Your task to perform on an android device: star an email in the gmail app Image 0: 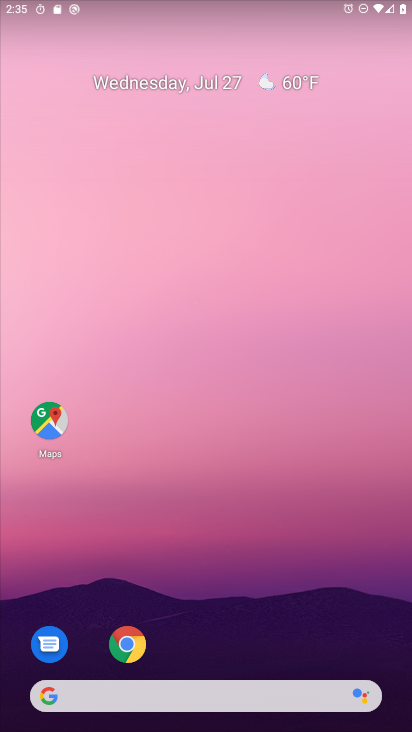
Step 0: drag from (196, 431) to (283, 1)
Your task to perform on an android device: star an email in the gmail app Image 1: 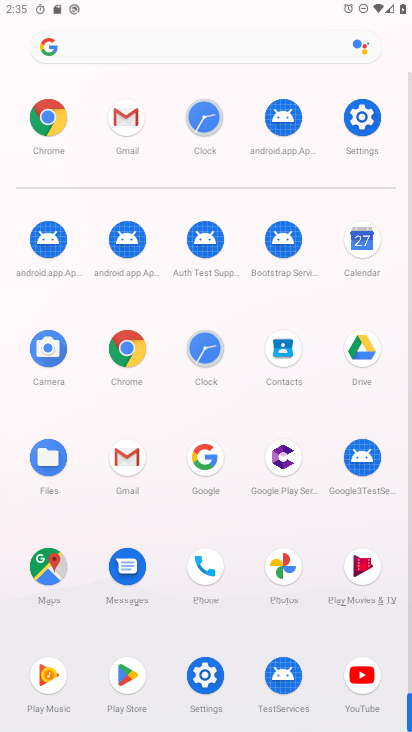
Step 1: click (130, 443)
Your task to perform on an android device: star an email in the gmail app Image 2: 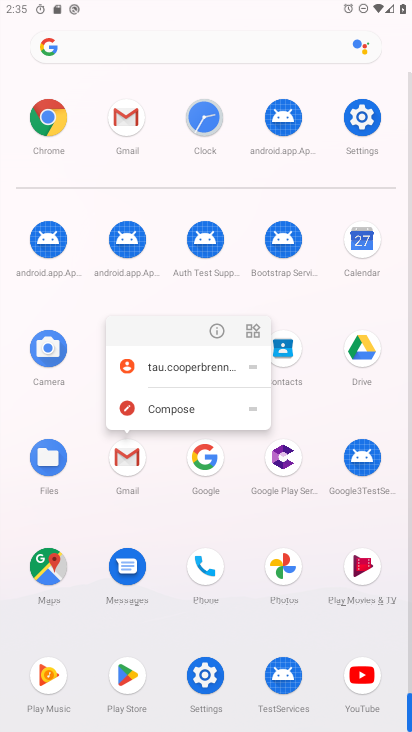
Step 2: click (222, 321)
Your task to perform on an android device: star an email in the gmail app Image 3: 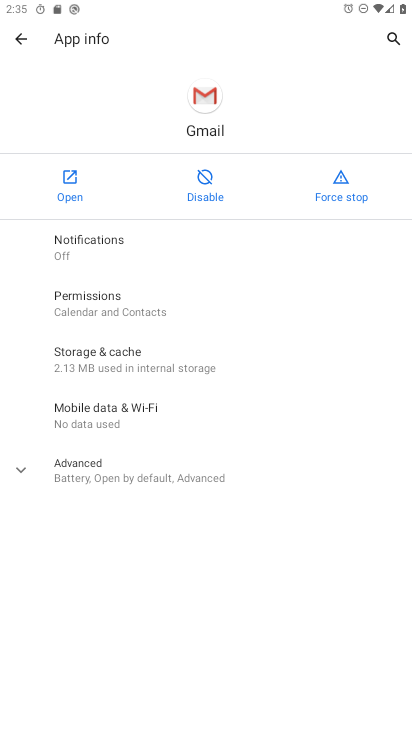
Step 3: click (72, 204)
Your task to perform on an android device: star an email in the gmail app Image 4: 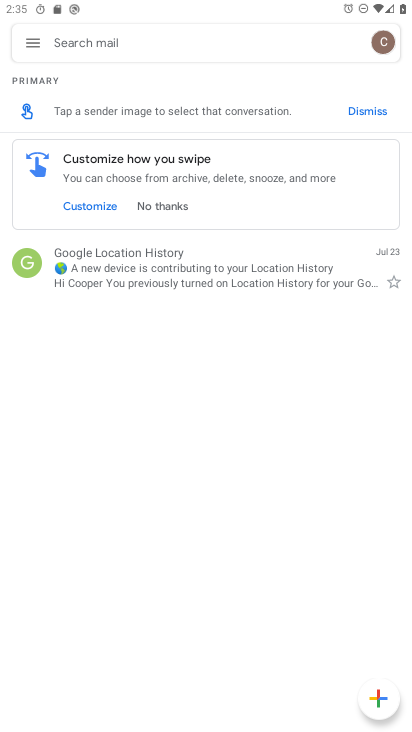
Step 4: click (24, 34)
Your task to perform on an android device: star an email in the gmail app Image 5: 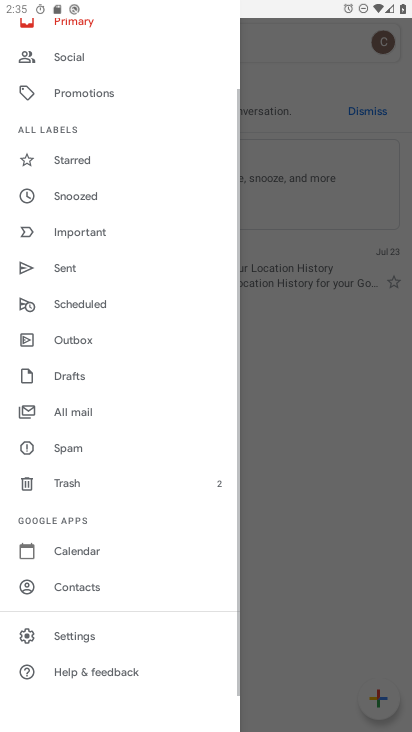
Step 5: drag from (92, 128) to (128, 479)
Your task to perform on an android device: star an email in the gmail app Image 6: 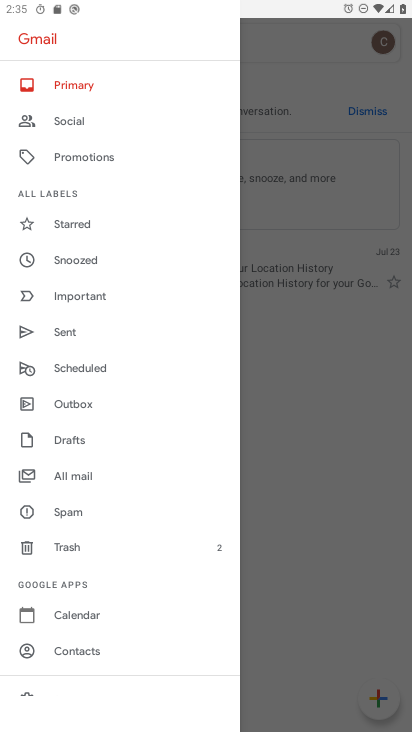
Step 6: click (268, 348)
Your task to perform on an android device: star an email in the gmail app Image 7: 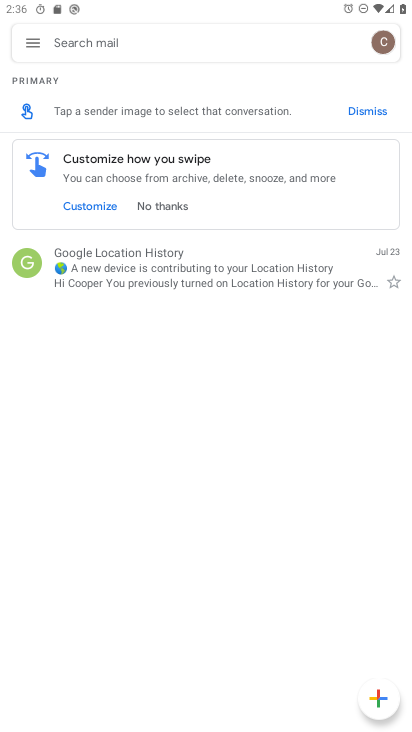
Step 7: drag from (234, 420) to (240, 611)
Your task to perform on an android device: star an email in the gmail app Image 8: 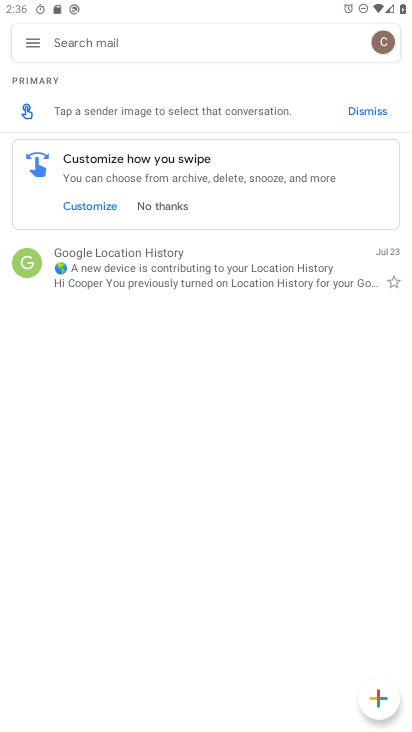
Step 8: click (191, 266)
Your task to perform on an android device: star an email in the gmail app Image 9: 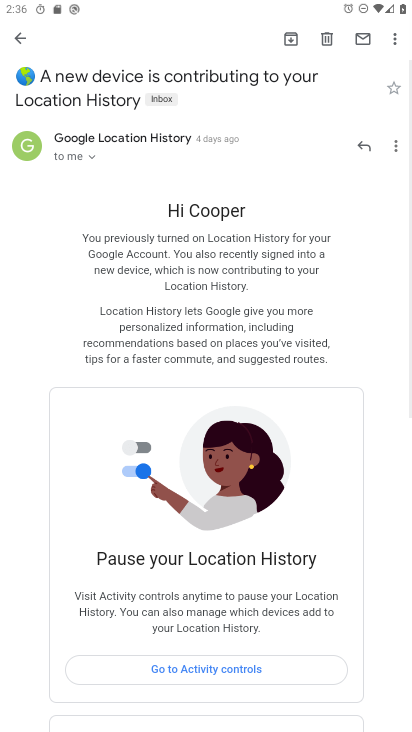
Step 9: click (392, 92)
Your task to perform on an android device: star an email in the gmail app Image 10: 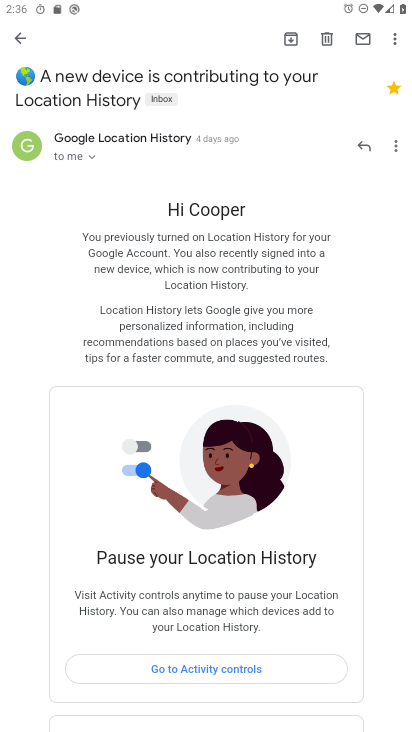
Step 10: task complete